Your task to perform on an android device: What is the news today? Image 0: 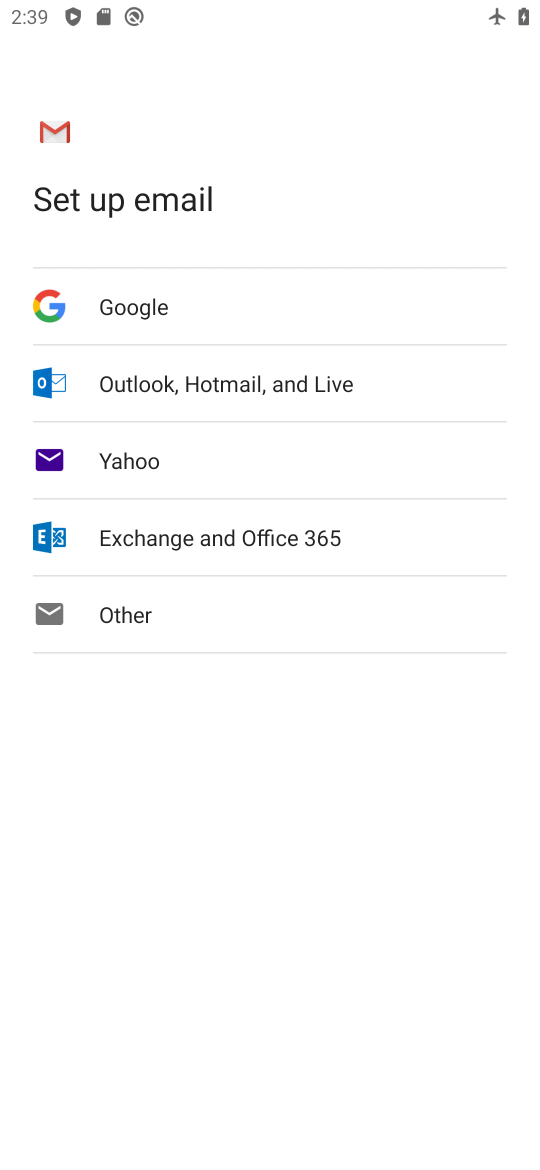
Step 0: press home button
Your task to perform on an android device: What is the news today? Image 1: 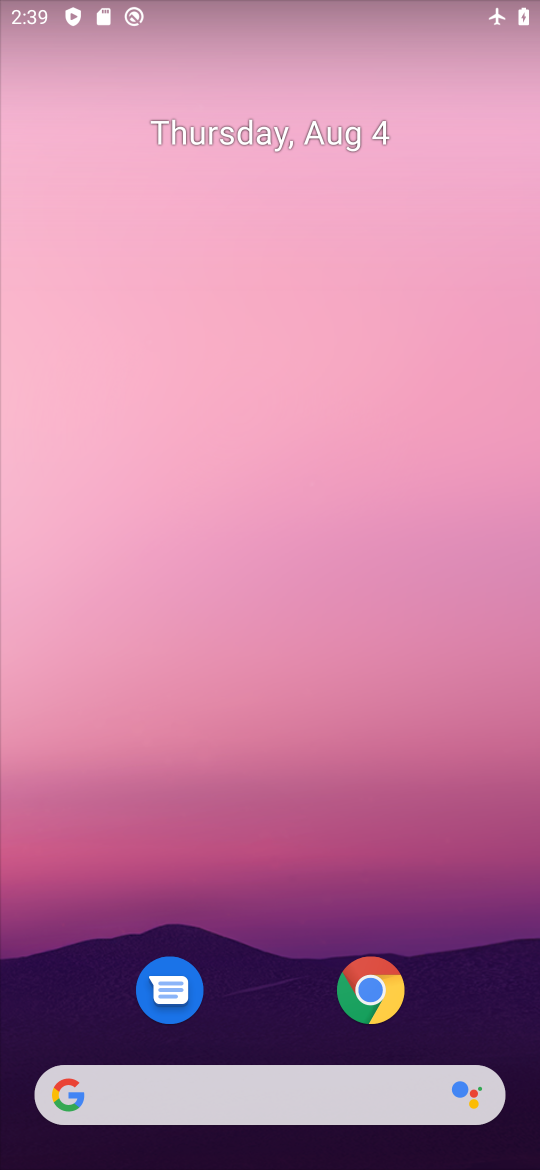
Step 1: drag from (289, 1045) to (260, 262)
Your task to perform on an android device: What is the news today? Image 2: 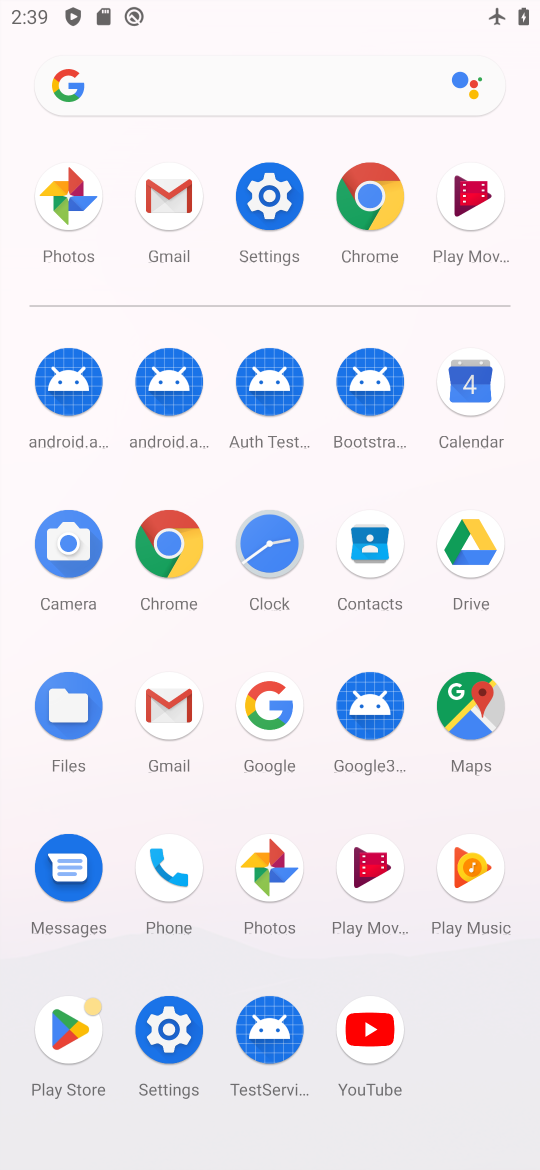
Step 2: click (280, 85)
Your task to perform on an android device: What is the news today? Image 3: 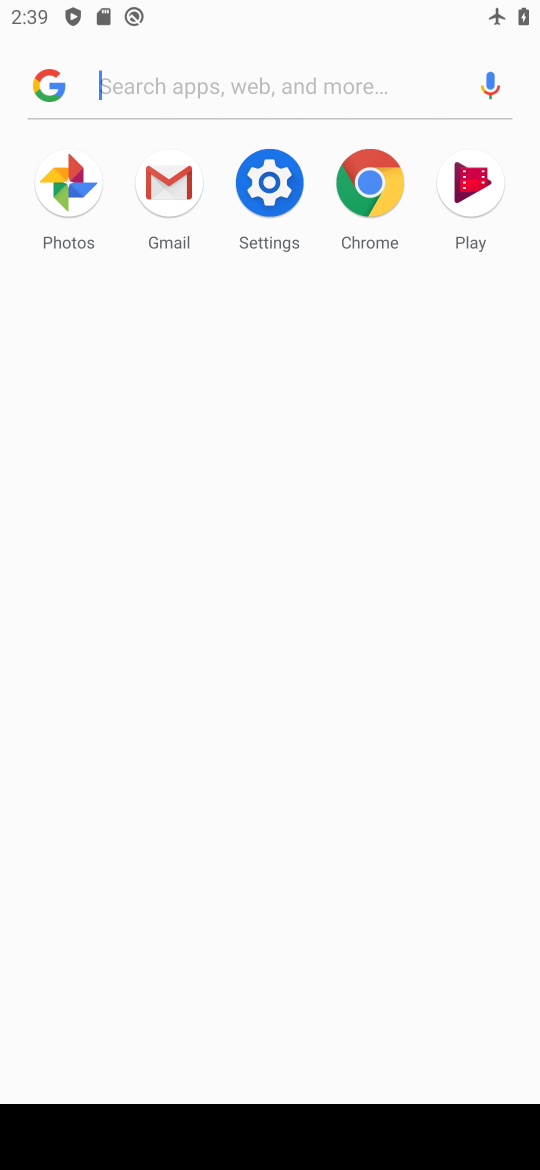
Step 3: type "new"
Your task to perform on an android device: What is the news today? Image 4: 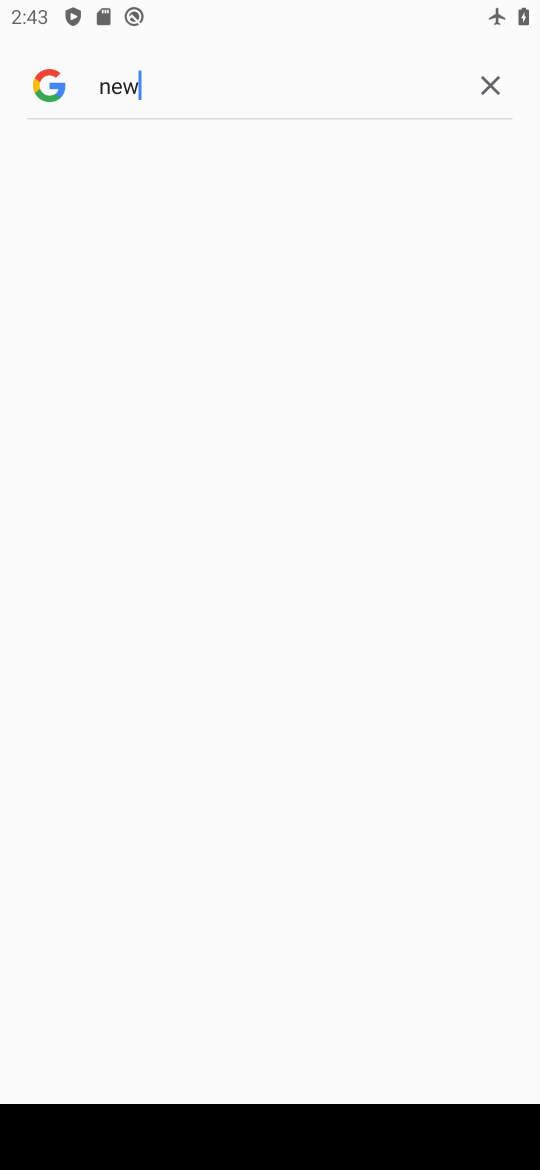
Step 4: task complete